Your task to perform on an android device: Open the Play Movies app and select the watchlist tab. Image 0: 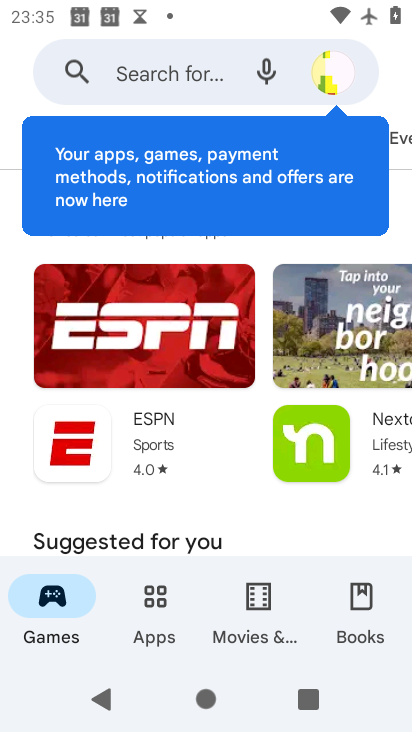
Step 0: press home button
Your task to perform on an android device: Open the Play Movies app and select the watchlist tab. Image 1: 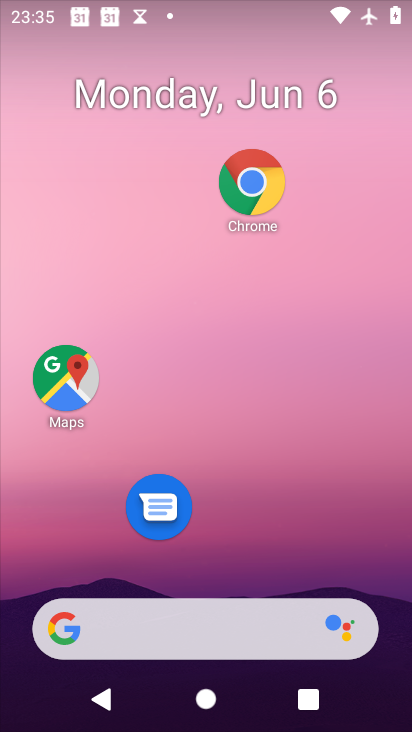
Step 1: drag from (286, 581) to (279, 273)
Your task to perform on an android device: Open the Play Movies app and select the watchlist tab. Image 2: 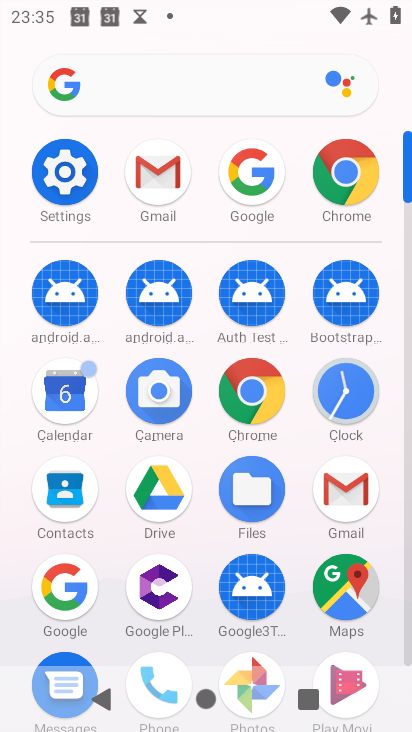
Step 2: drag from (300, 625) to (309, 399)
Your task to perform on an android device: Open the Play Movies app and select the watchlist tab. Image 3: 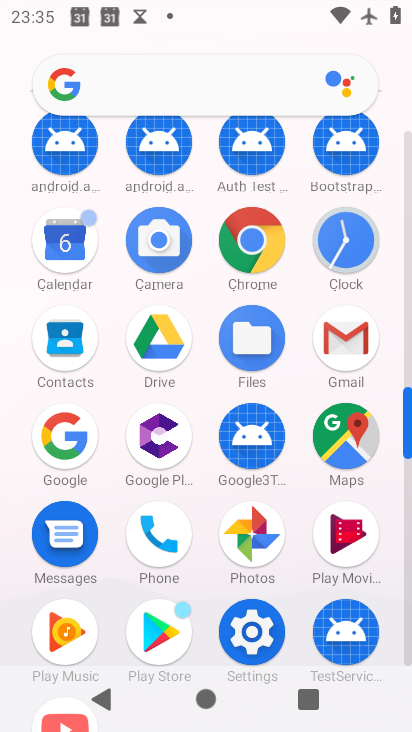
Step 3: click (355, 525)
Your task to perform on an android device: Open the Play Movies app and select the watchlist tab. Image 4: 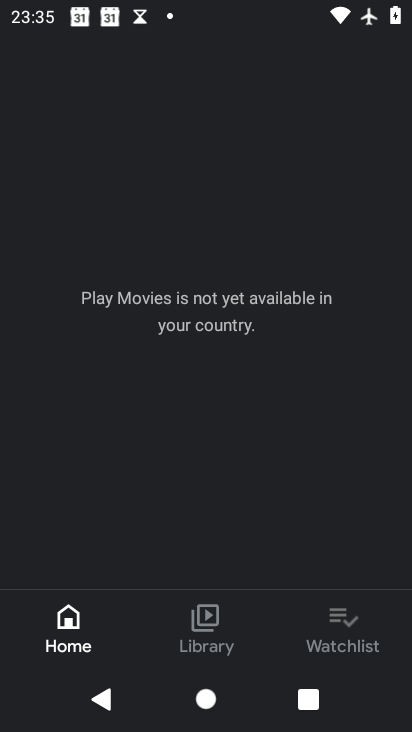
Step 4: click (333, 618)
Your task to perform on an android device: Open the Play Movies app and select the watchlist tab. Image 5: 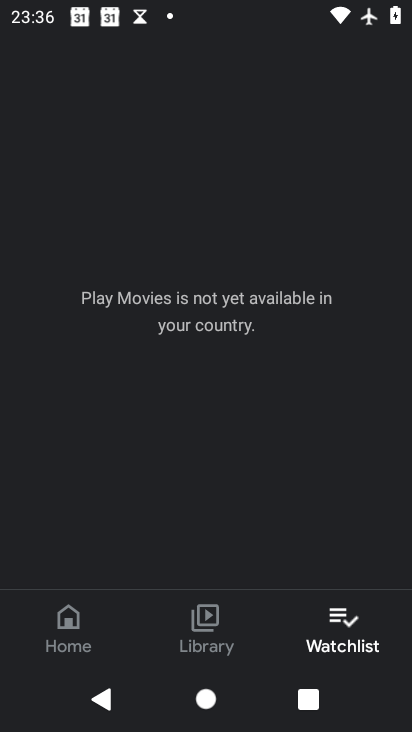
Step 5: task complete